Your task to perform on an android device: move a message to another label in the gmail app Image 0: 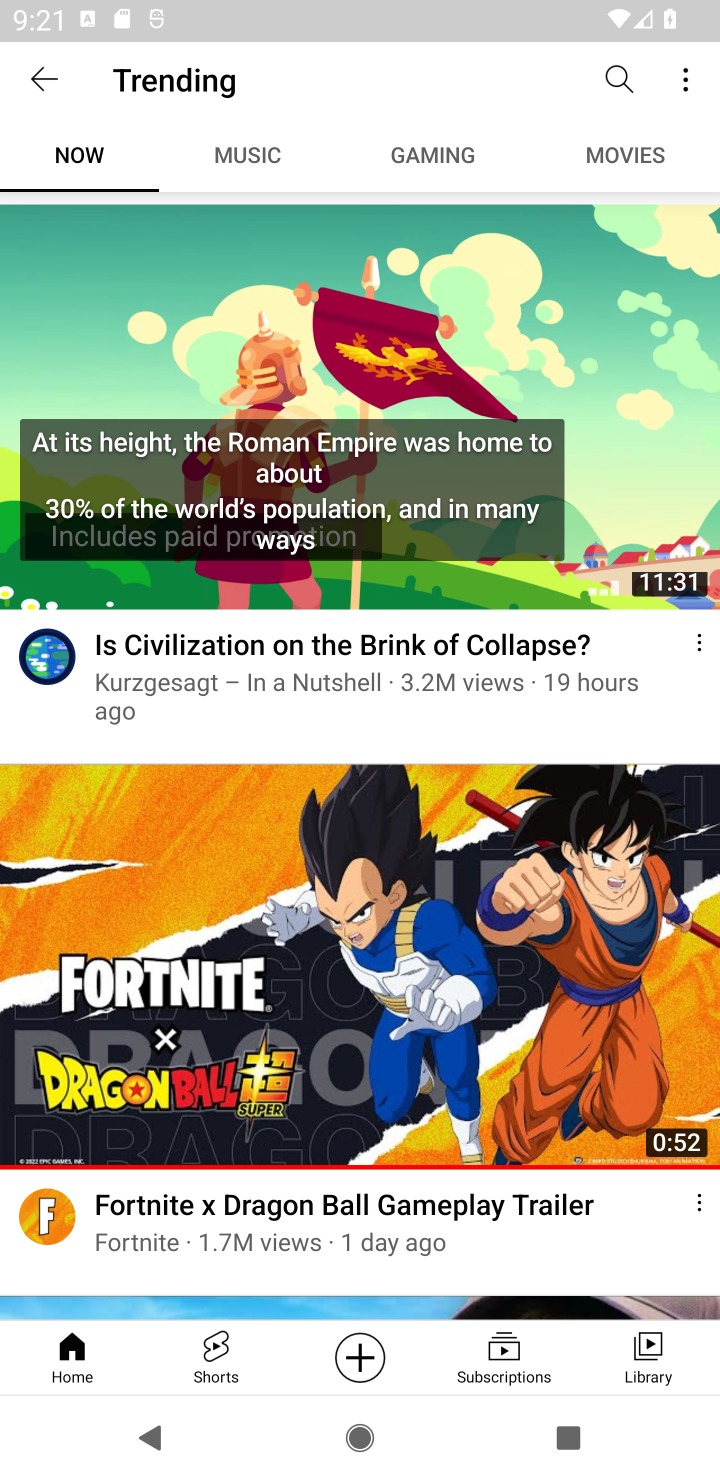
Step 0: press home button
Your task to perform on an android device: move a message to another label in the gmail app Image 1: 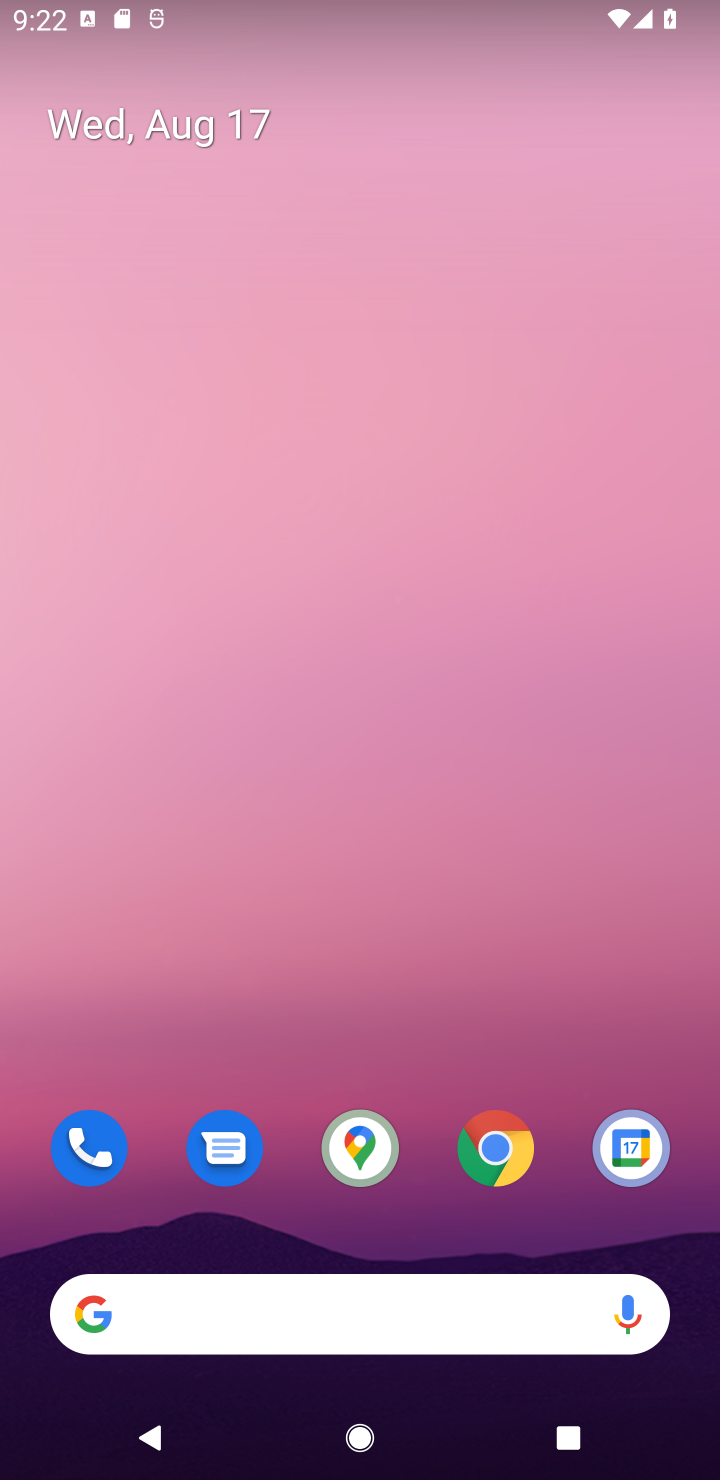
Step 1: drag from (565, 1223) to (571, 263)
Your task to perform on an android device: move a message to another label in the gmail app Image 2: 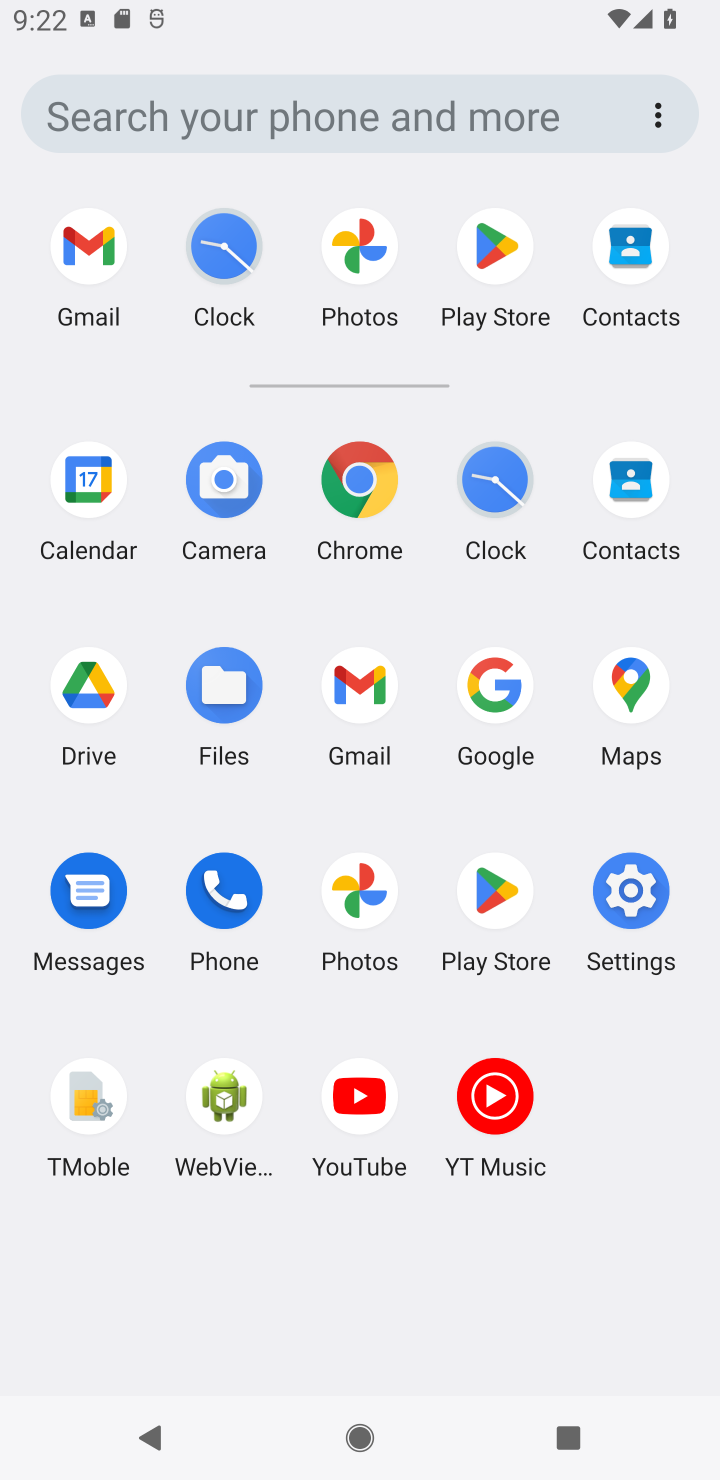
Step 2: click (357, 690)
Your task to perform on an android device: move a message to another label in the gmail app Image 3: 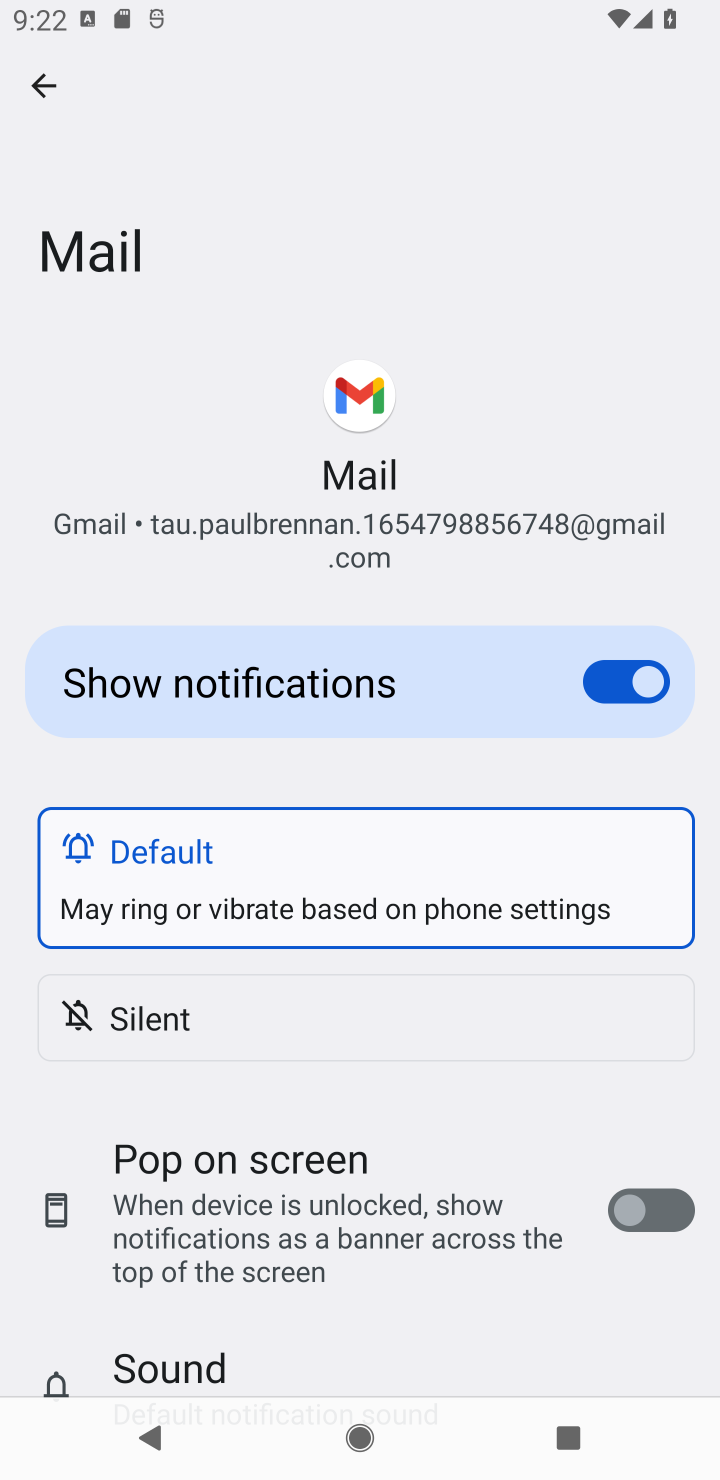
Step 3: press back button
Your task to perform on an android device: move a message to another label in the gmail app Image 4: 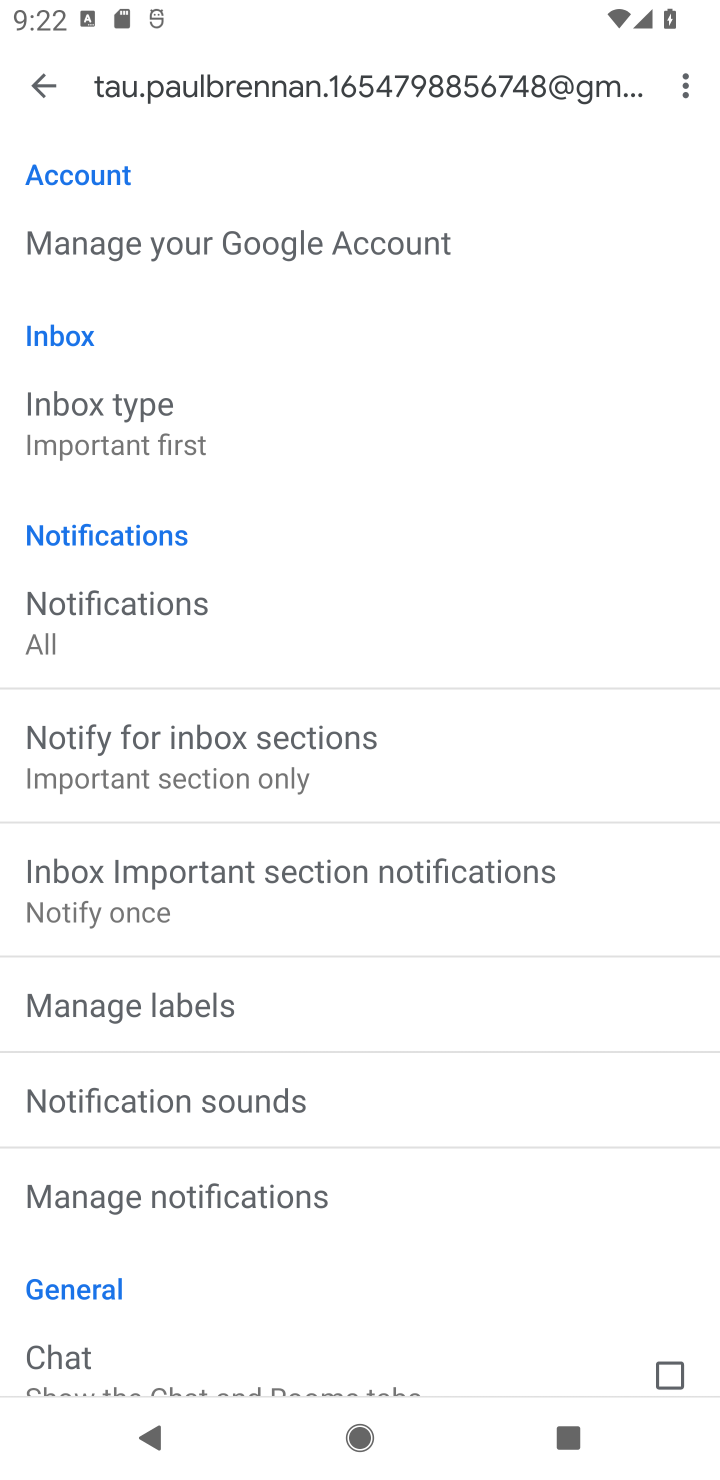
Step 4: press back button
Your task to perform on an android device: move a message to another label in the gmail app Image 5: 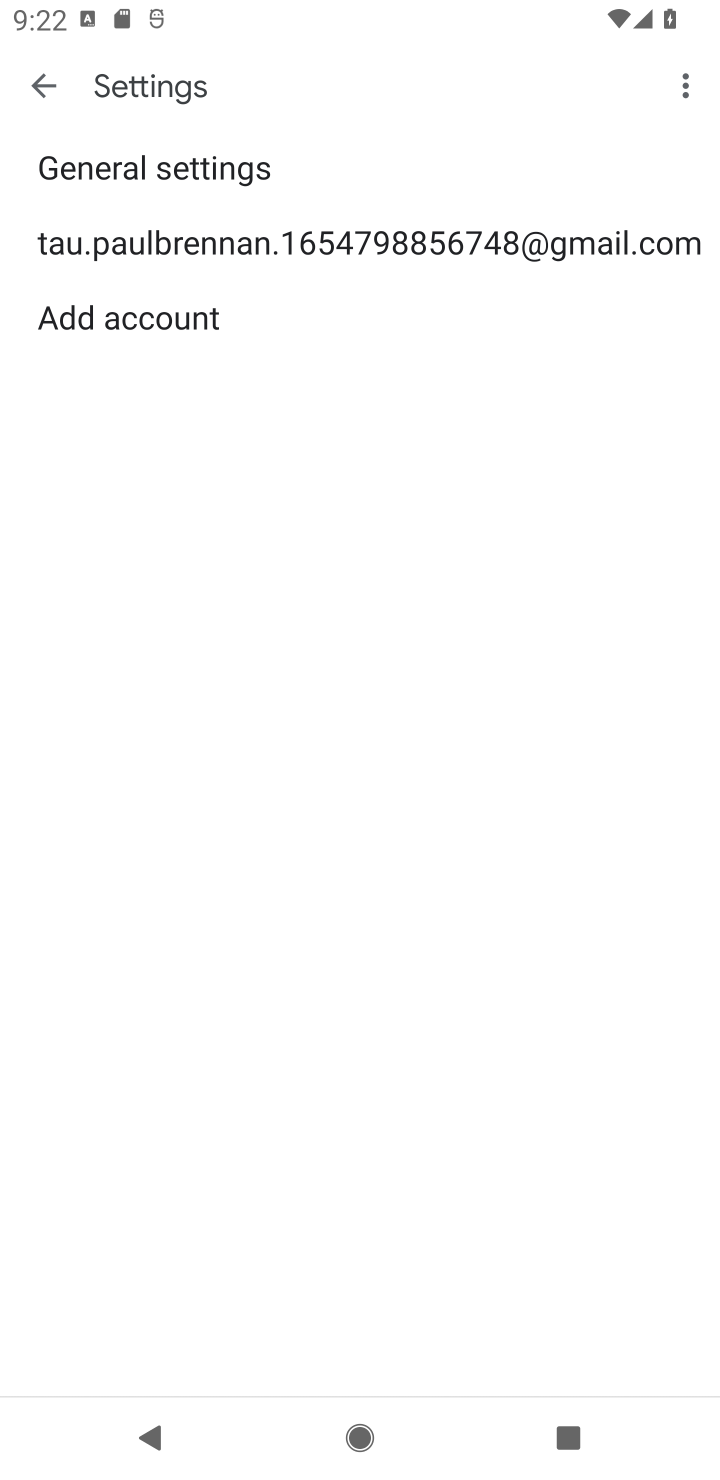
Step 5: press back button
Your task to perform on an android device: move a message to another label in the gmail app Image 6: 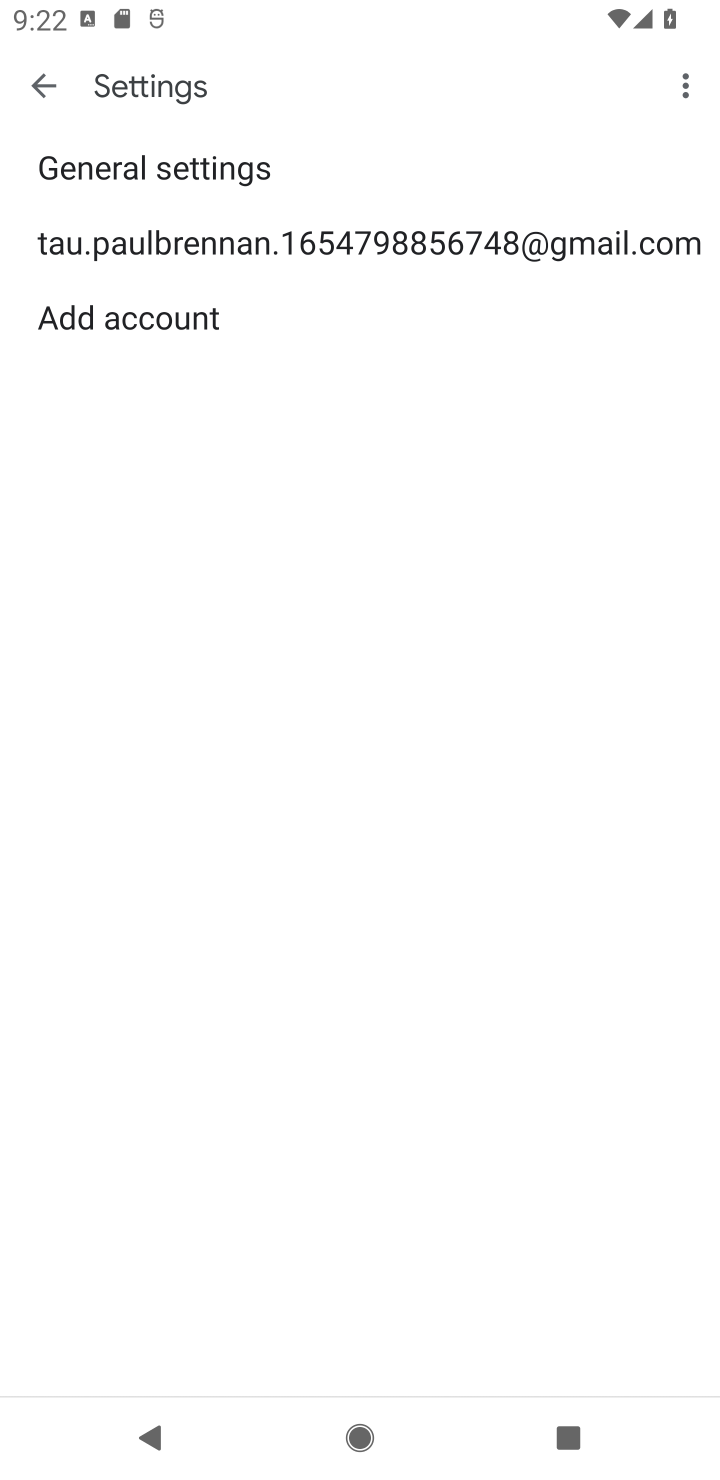
Step 6: press back button
Your task to perform on an android device: move a message to another label in the gmail app Image 7: 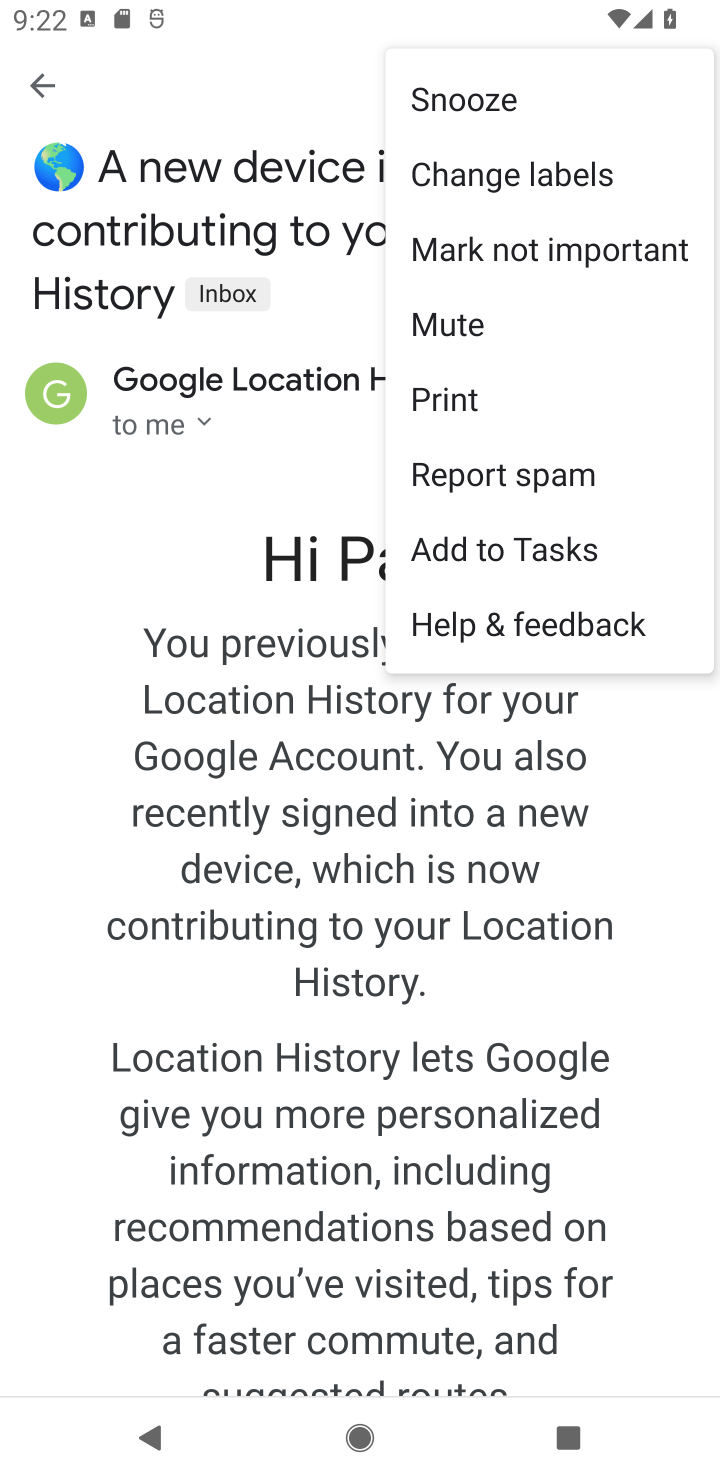
Step 7: press back button
Your task to perform on an android device: move a message to another label in the gmail app Image 8: 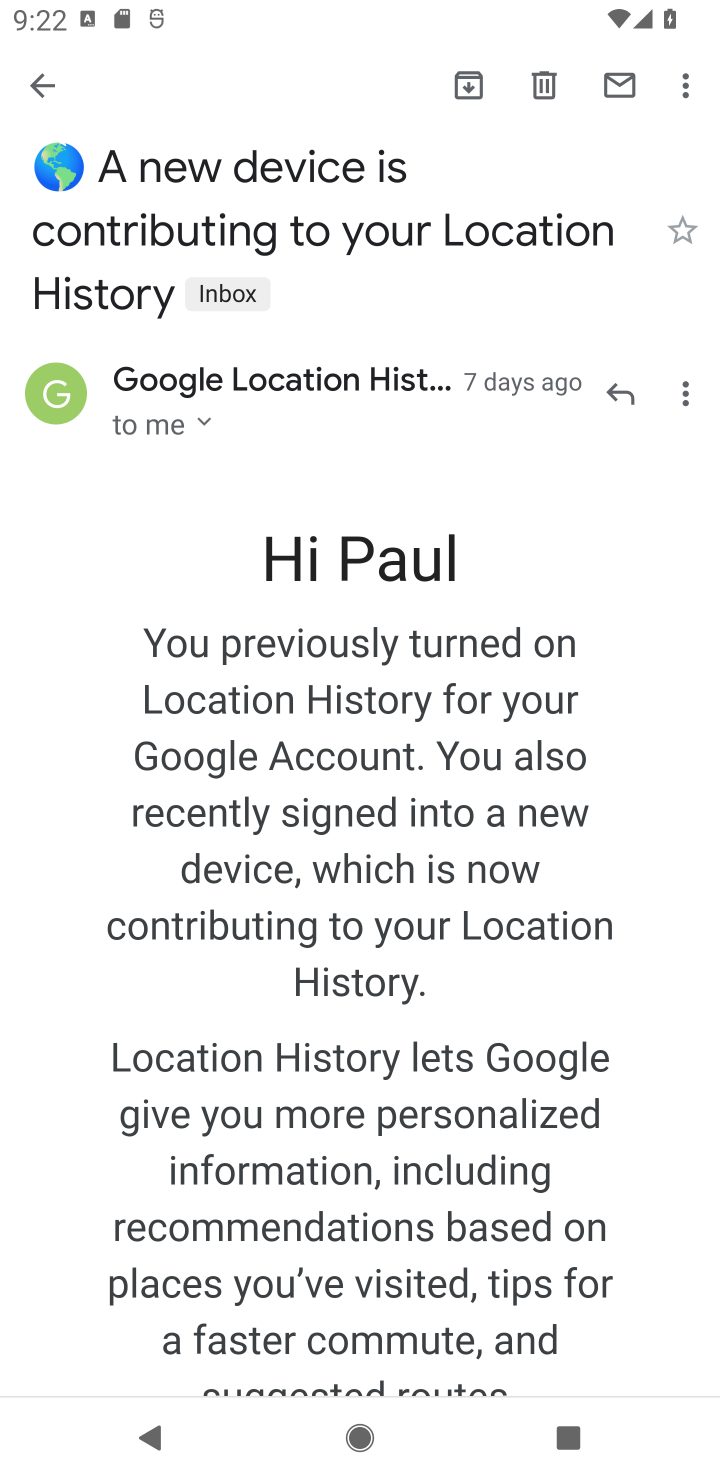
Step 8: press back button
Your task to perform on an android device: move a message to another label in the gmail app Image 9: 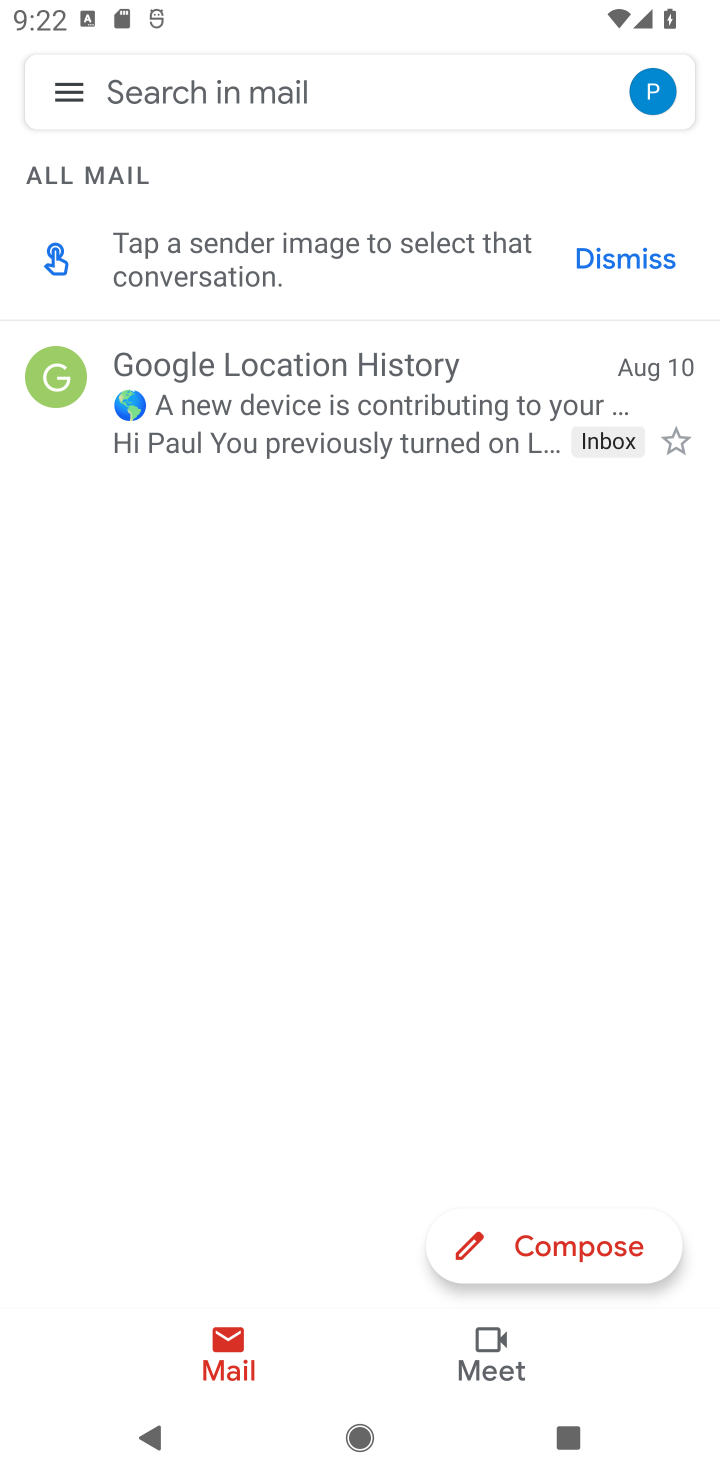
Step 9: click (347, 375)
Your task to perform on an android device: move a message to another label in the gmail app Image 10: 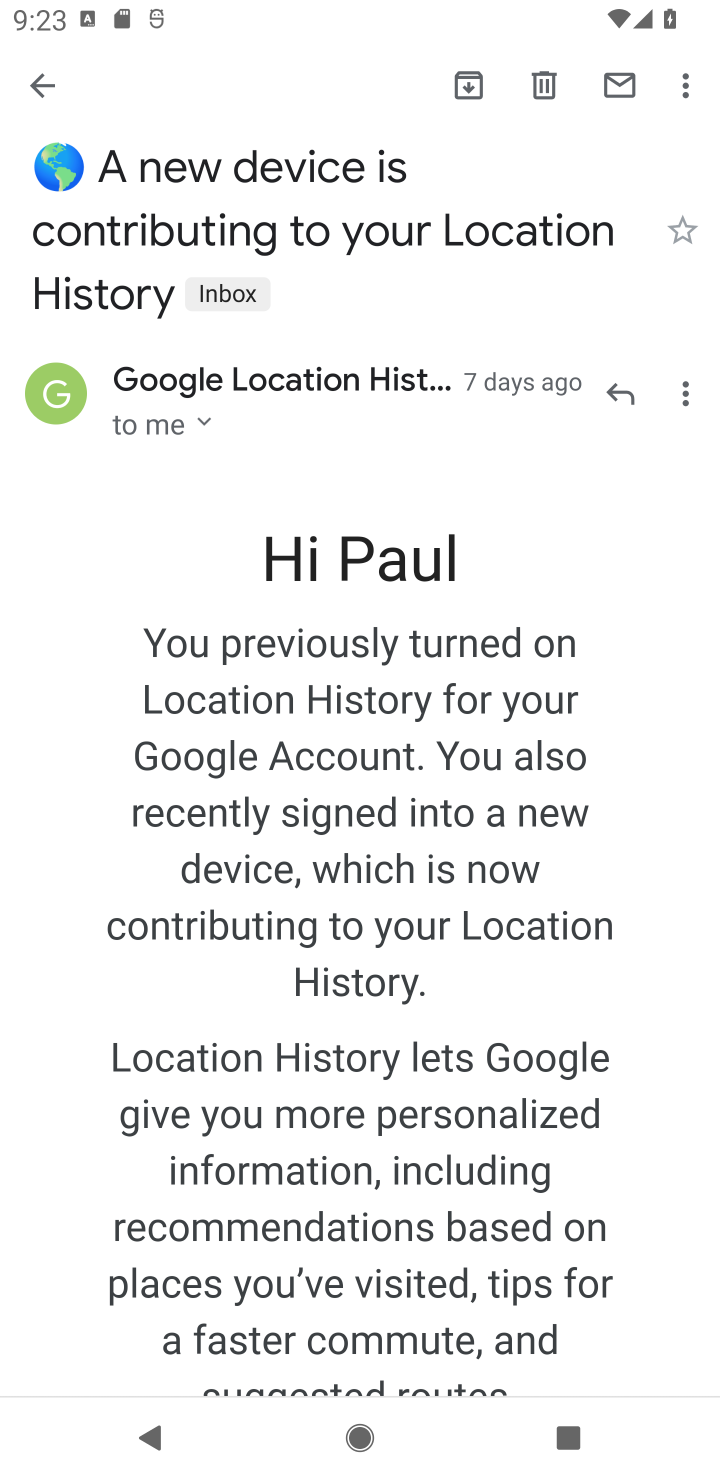
Step 10: click (682, 97)
Your task to perform on an android device: move a message to another label in the gmail app Image 11: 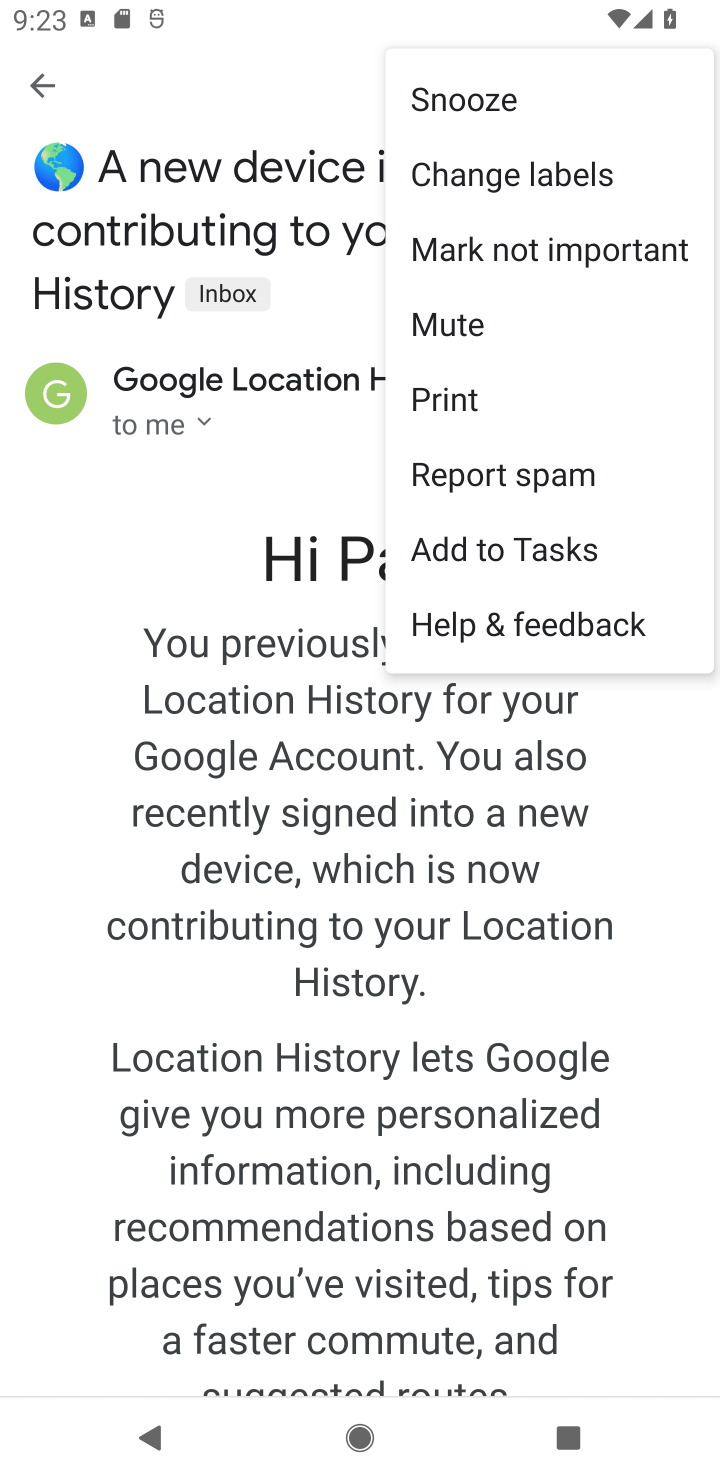
Step 11: click (535, 181)
Your task to perform on an android device: move a message to another label in the gmail app Image 12: 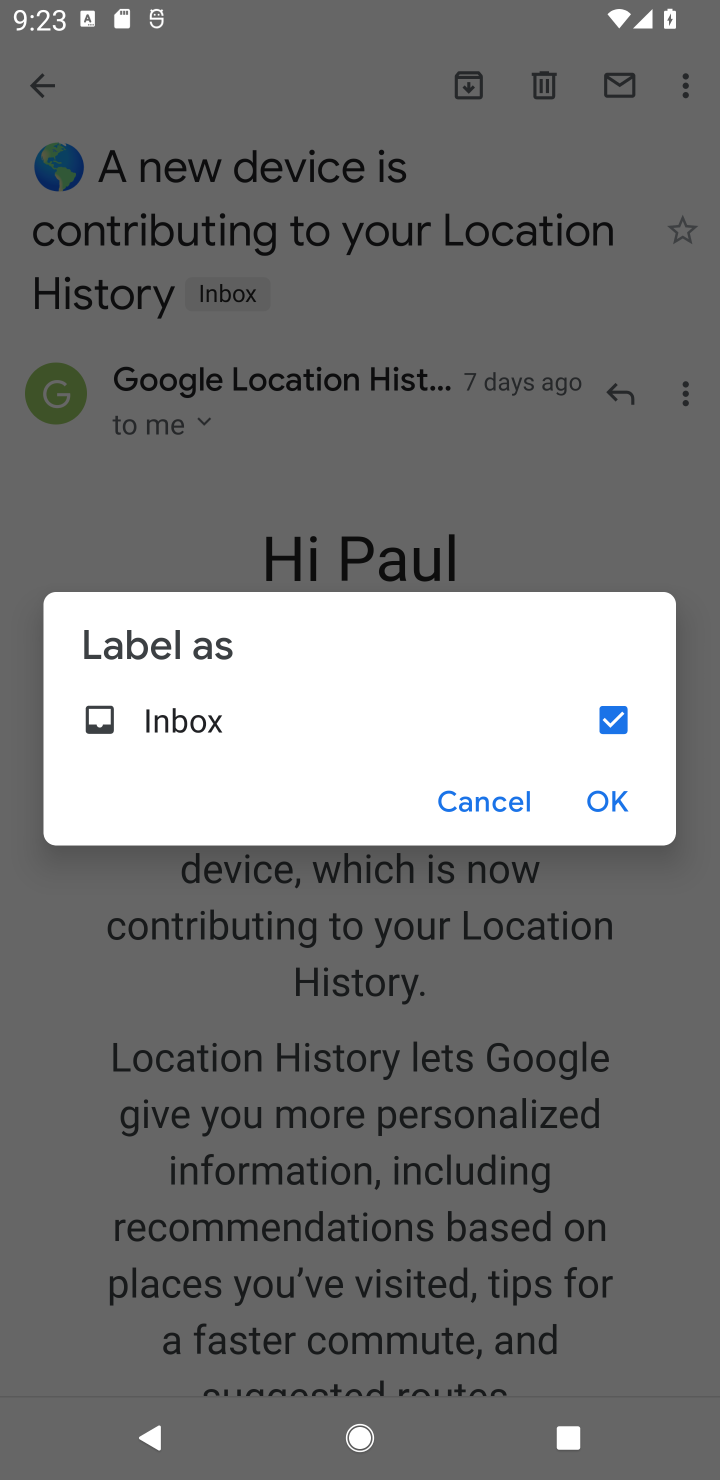
Step 12: click (608, 791)
Your task to perform on an android device: move a message to another label in the gmail app Image 13: 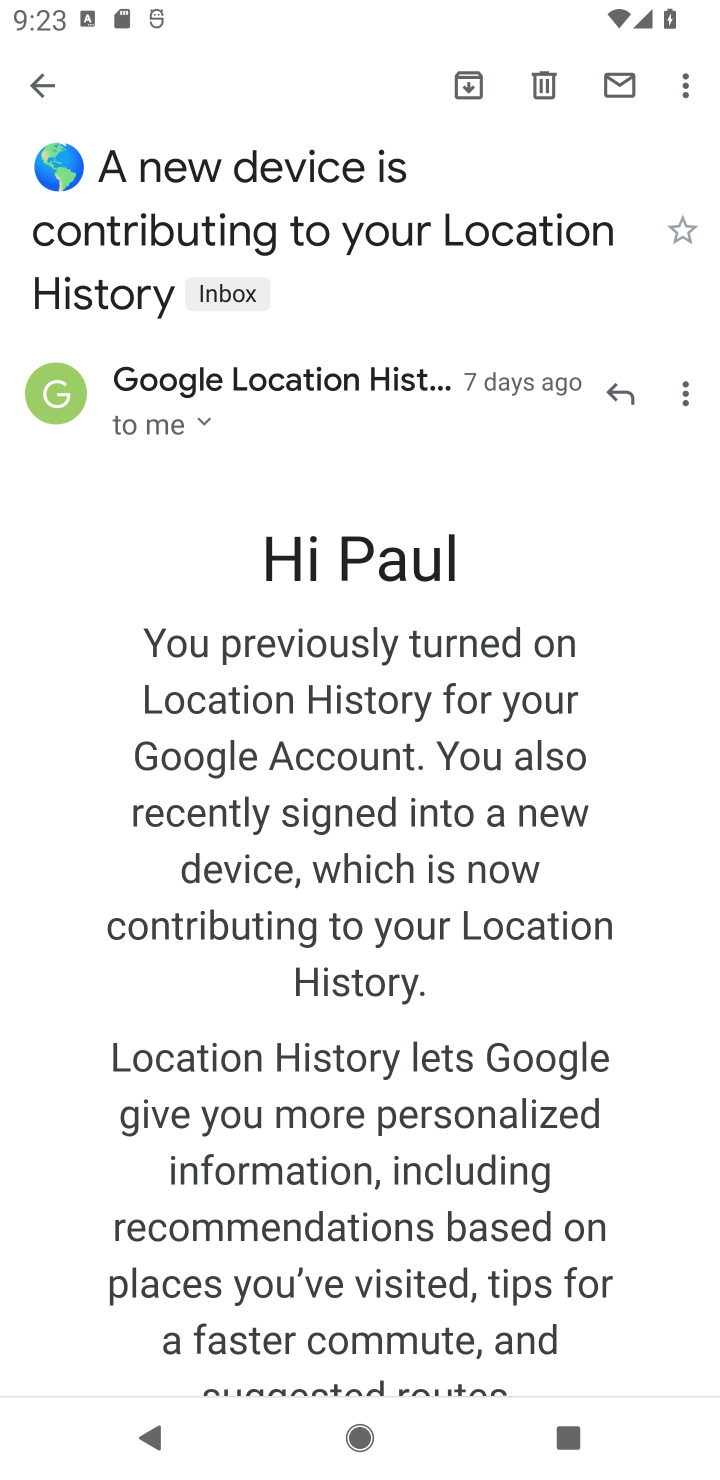
Step 13: task complete